Your task to perform on an android device: change notification settings in the gmail app Image 0: 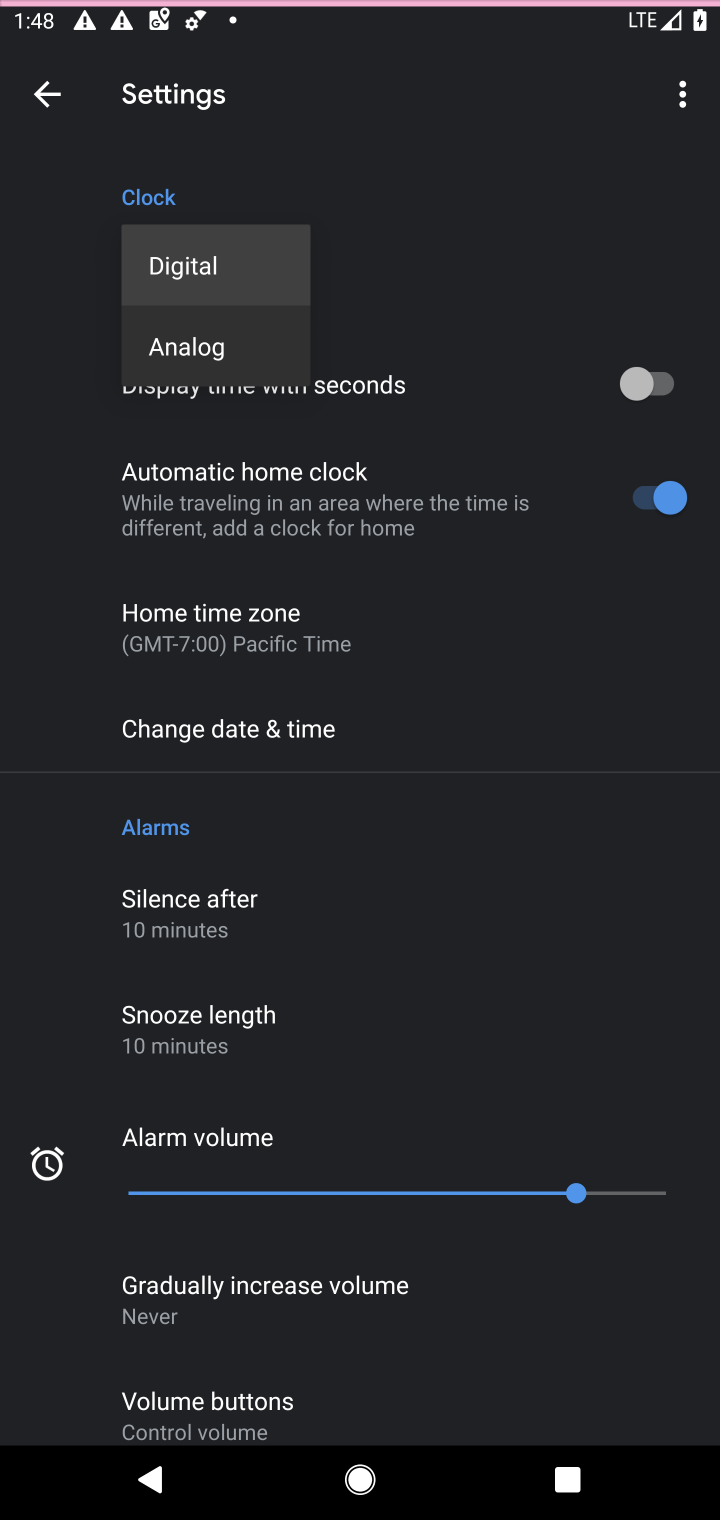
Step 0: press home button
Your task to perform on an android device: change notification settings in the gmail app Image 1: 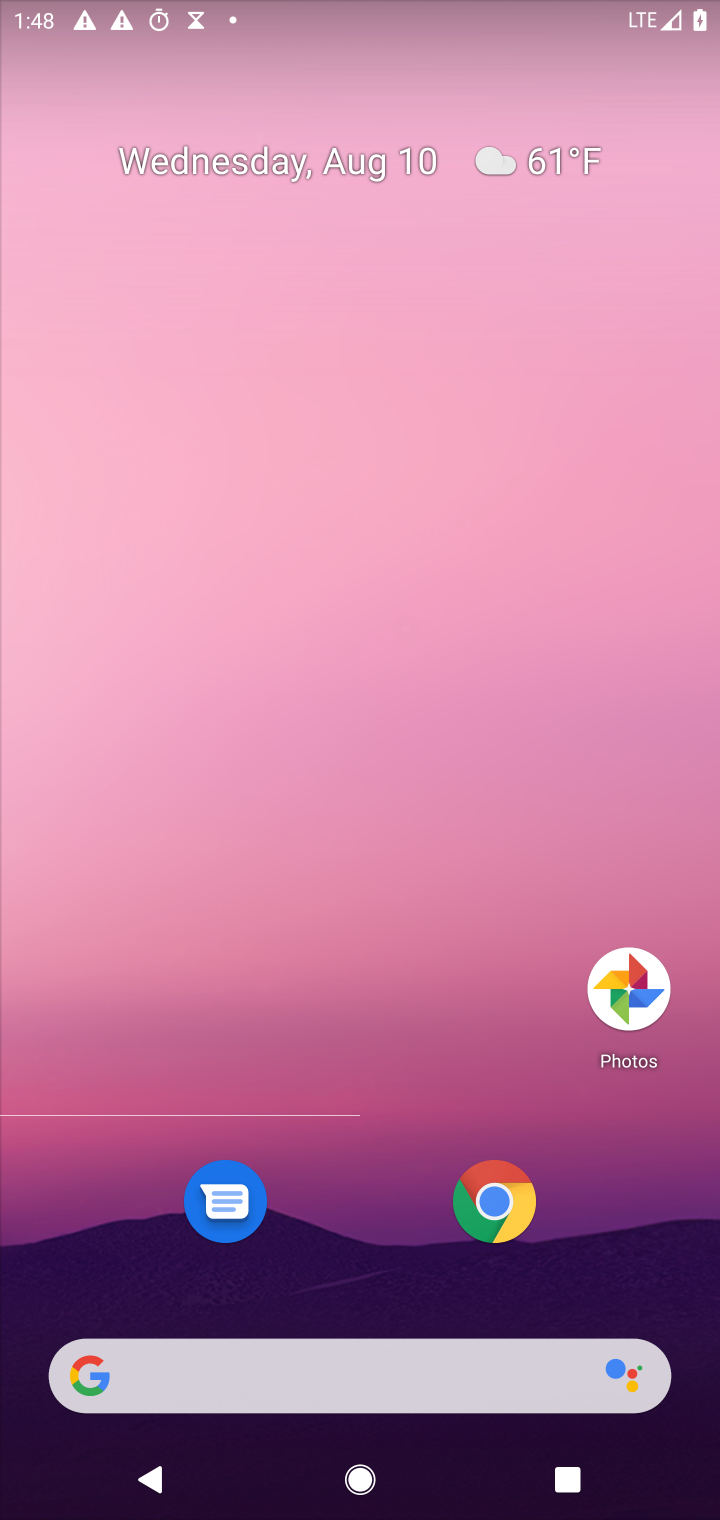
Step 1: press home button
Your task to perform on an android device: change notification settings in the gmail app Image 2: 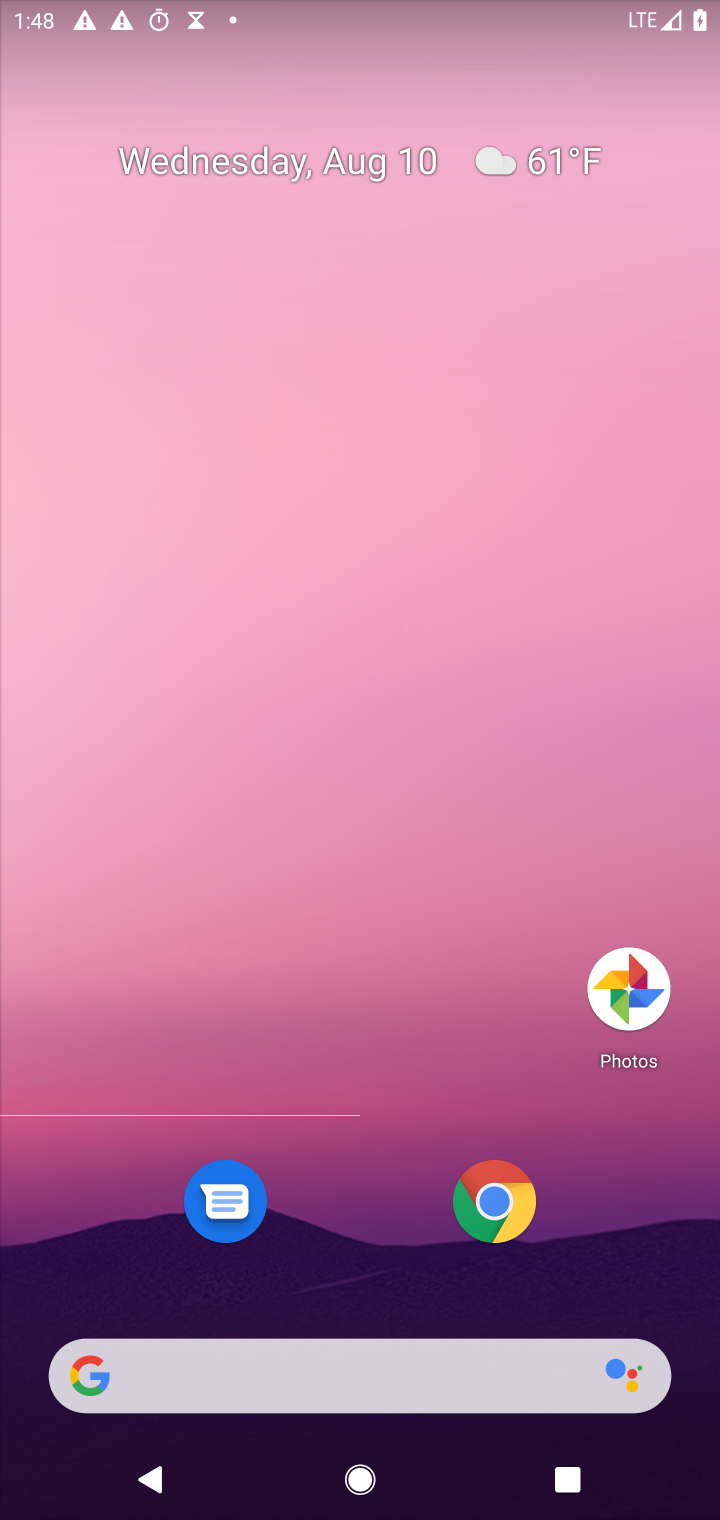
Step 2: drag from (406, 1189) to (344, 511)
Your task to perform on an android device: change notification settings in the gmail app Image 3: 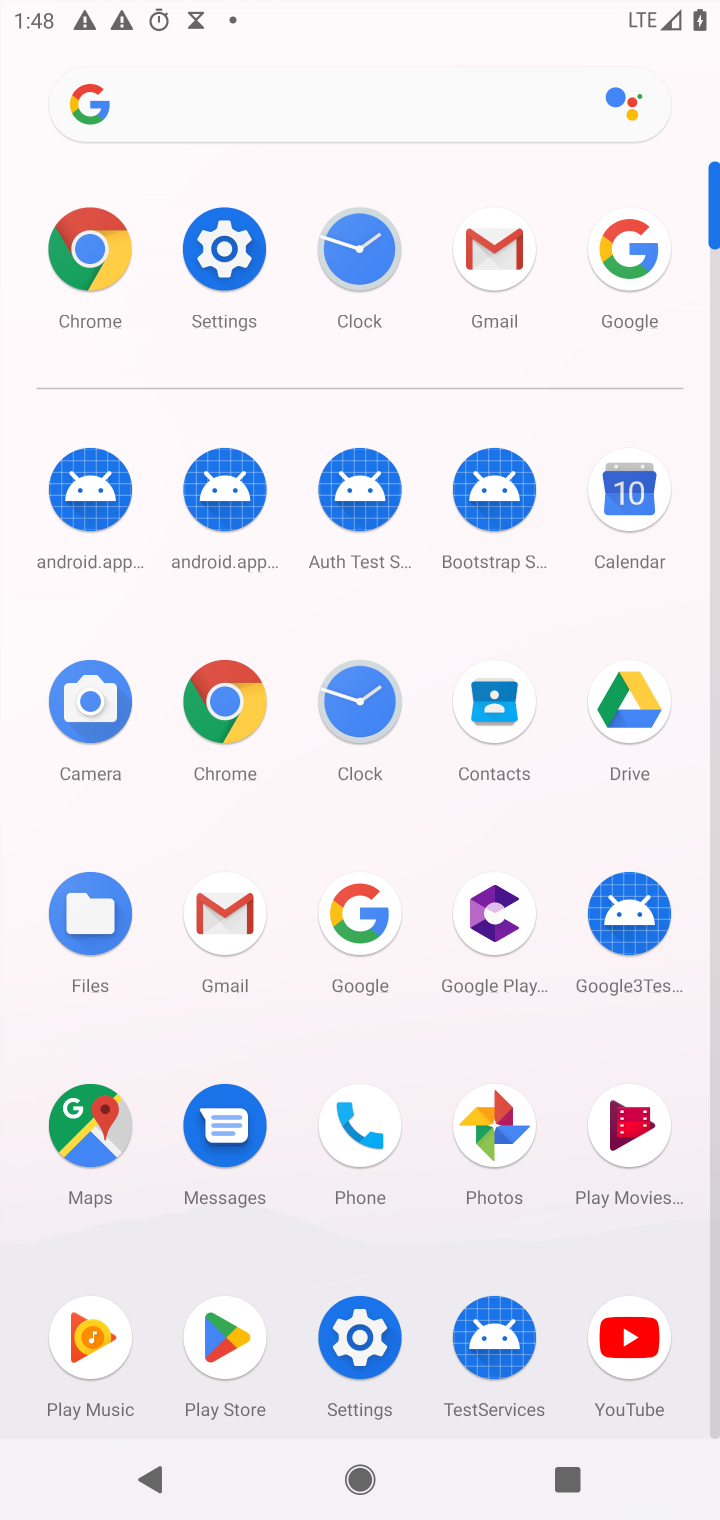
Step 3: click (505, 254)
Your task to perform on an android device: change notification settings in the gmail app Image 4: 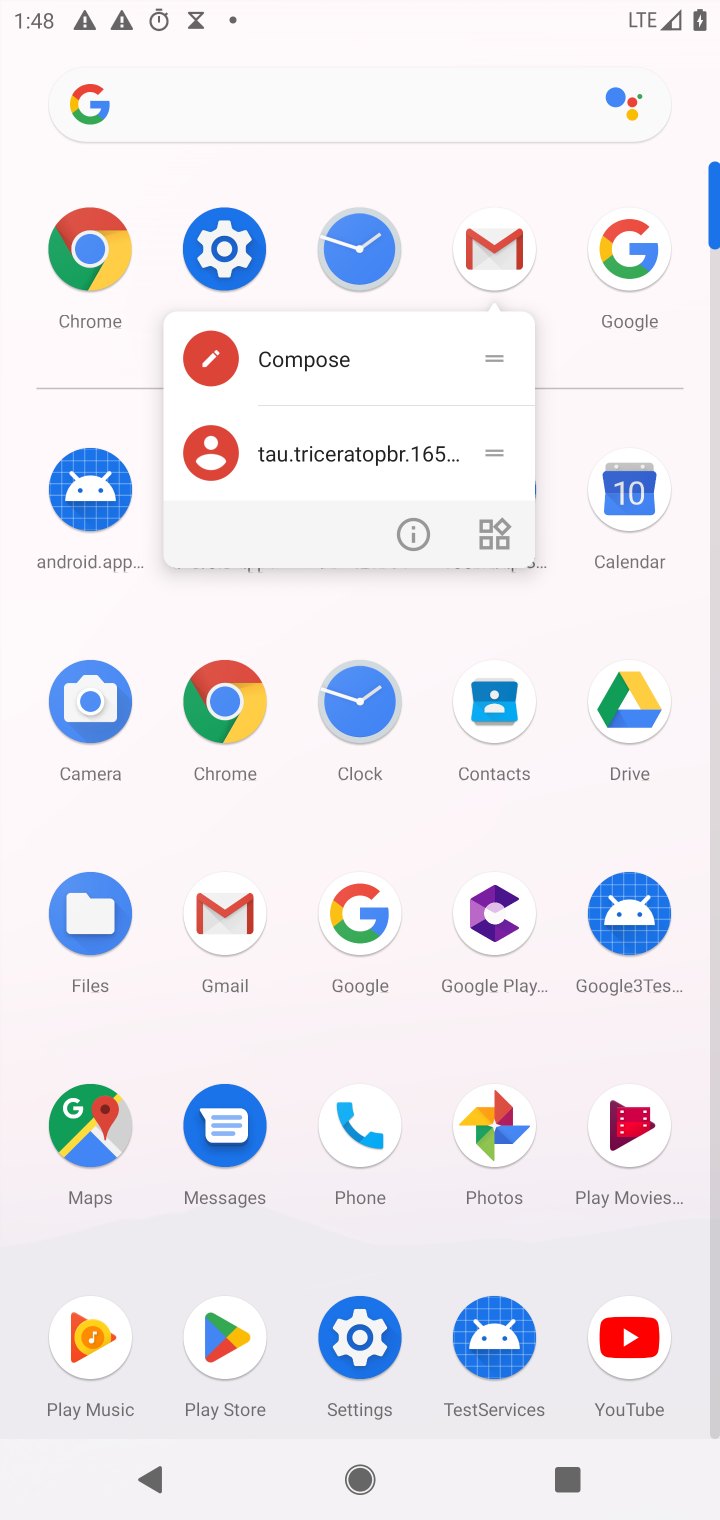
Step 4: click (505, 254)
Your task to perform on an android device: change notification settings in the gmail app Image 5: 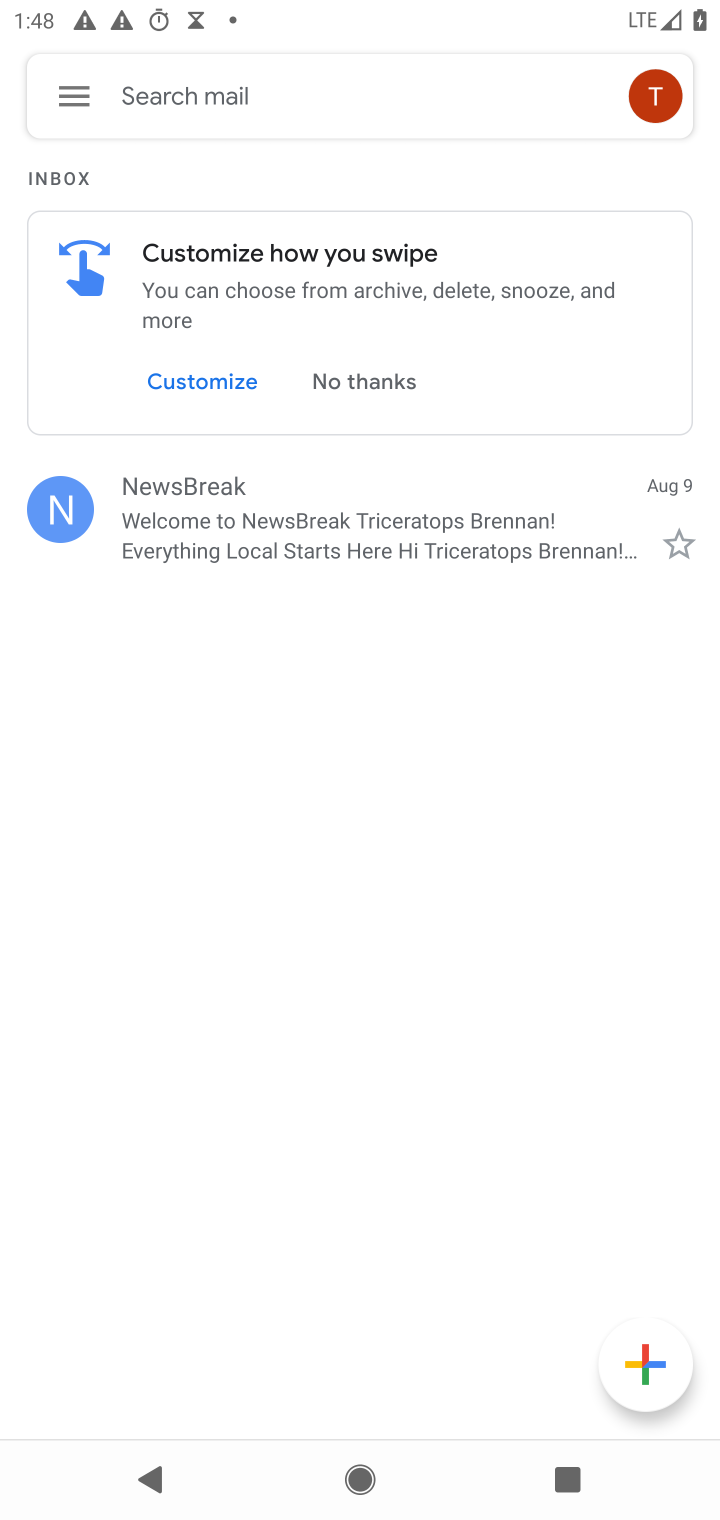
Step 5: click (50, 98)
Your task to perform on an android device: change notification settings in the gmail app Image 6: 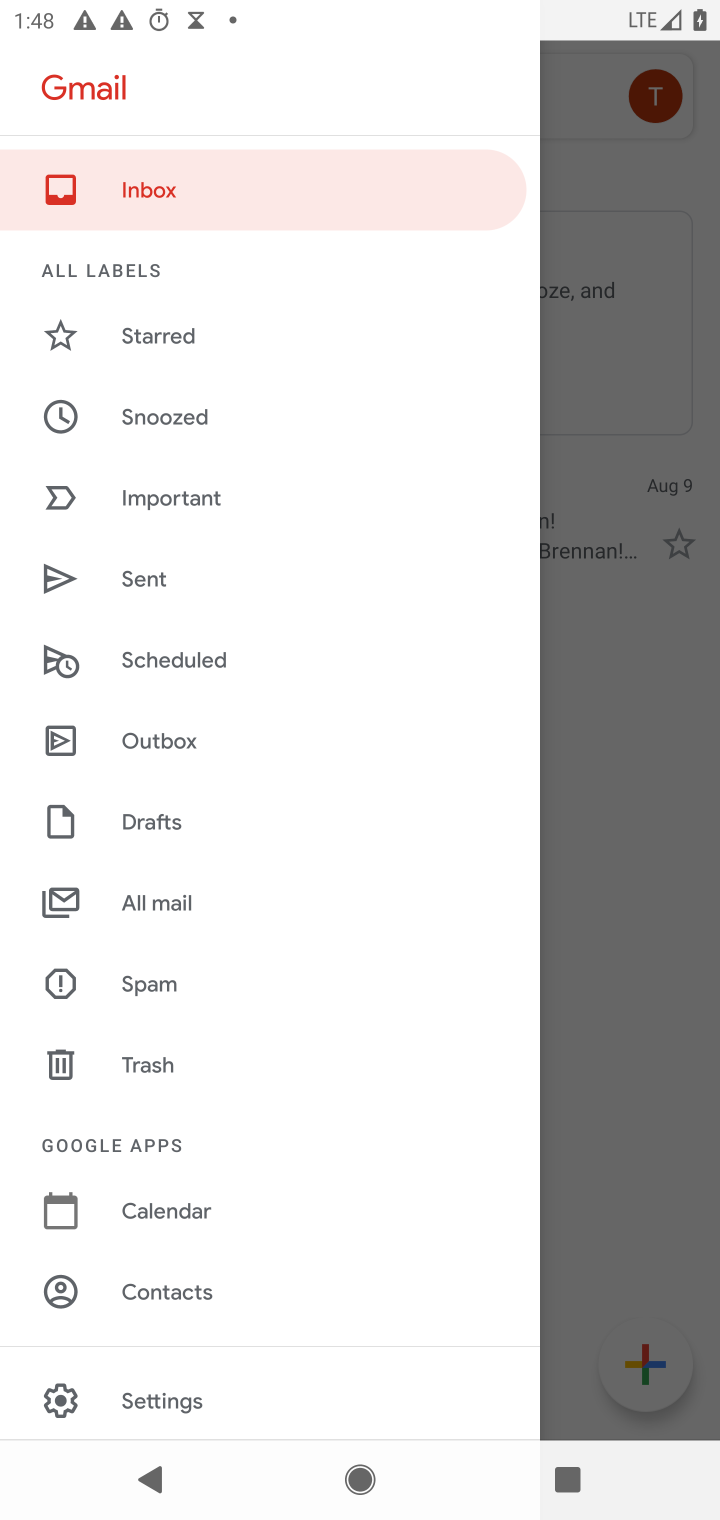
Step 6: click (159, 1401)
Your task to perform on an android device: change notification settings in the gmail app Image 7: 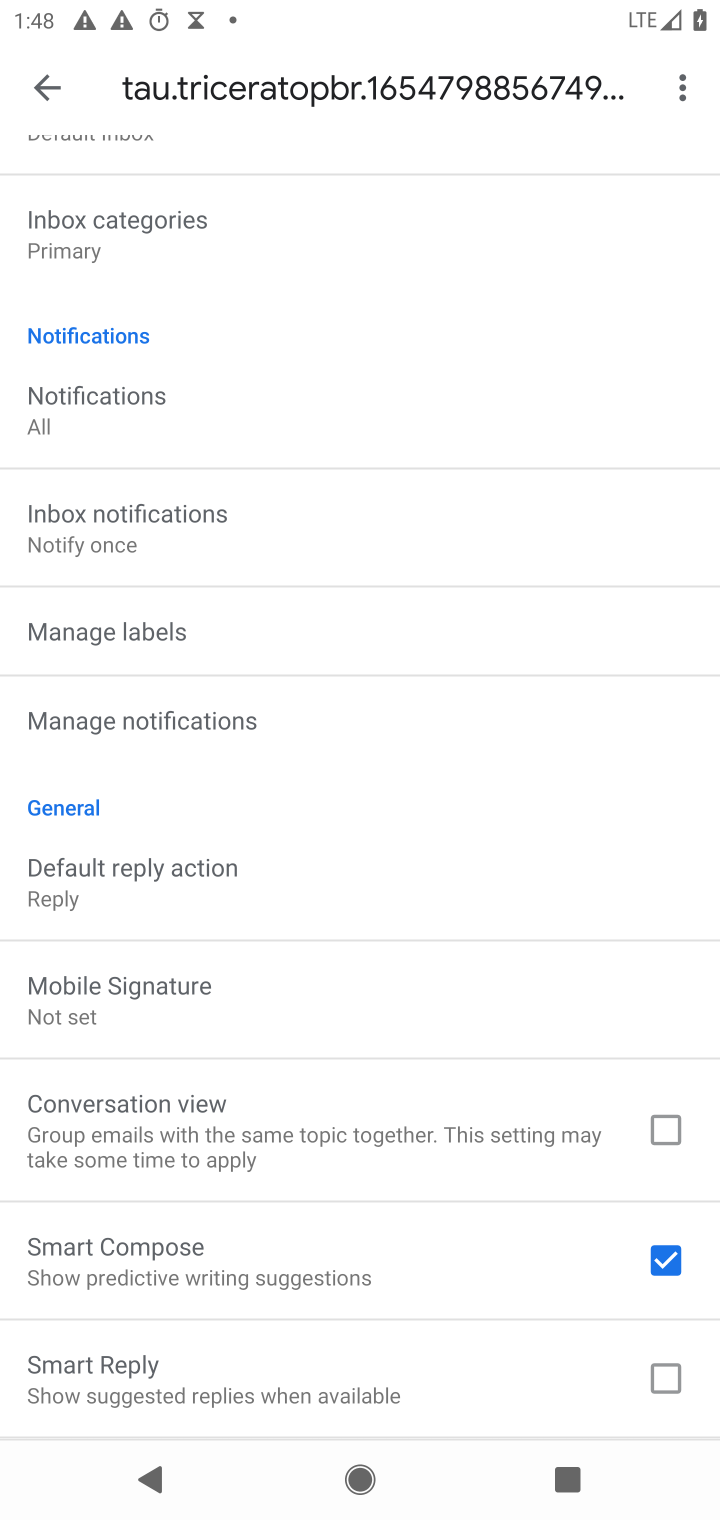
Step 7: click (161, 720)
Your task to perform on an android device: change notification settings in the gmail app Image 8: 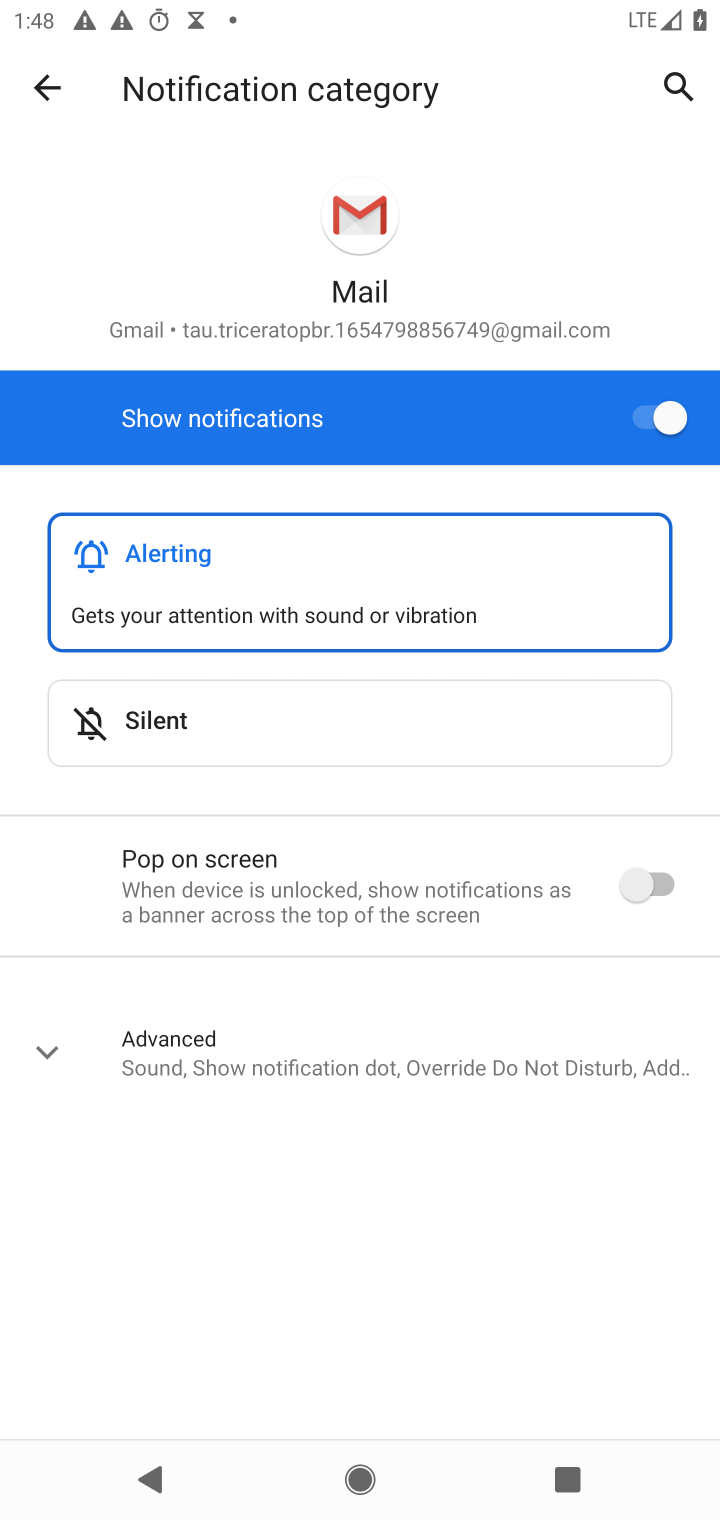
Step 8: click (669, 417)
Your task to perform on an android device: change notification settings in the gmail app Image 9: 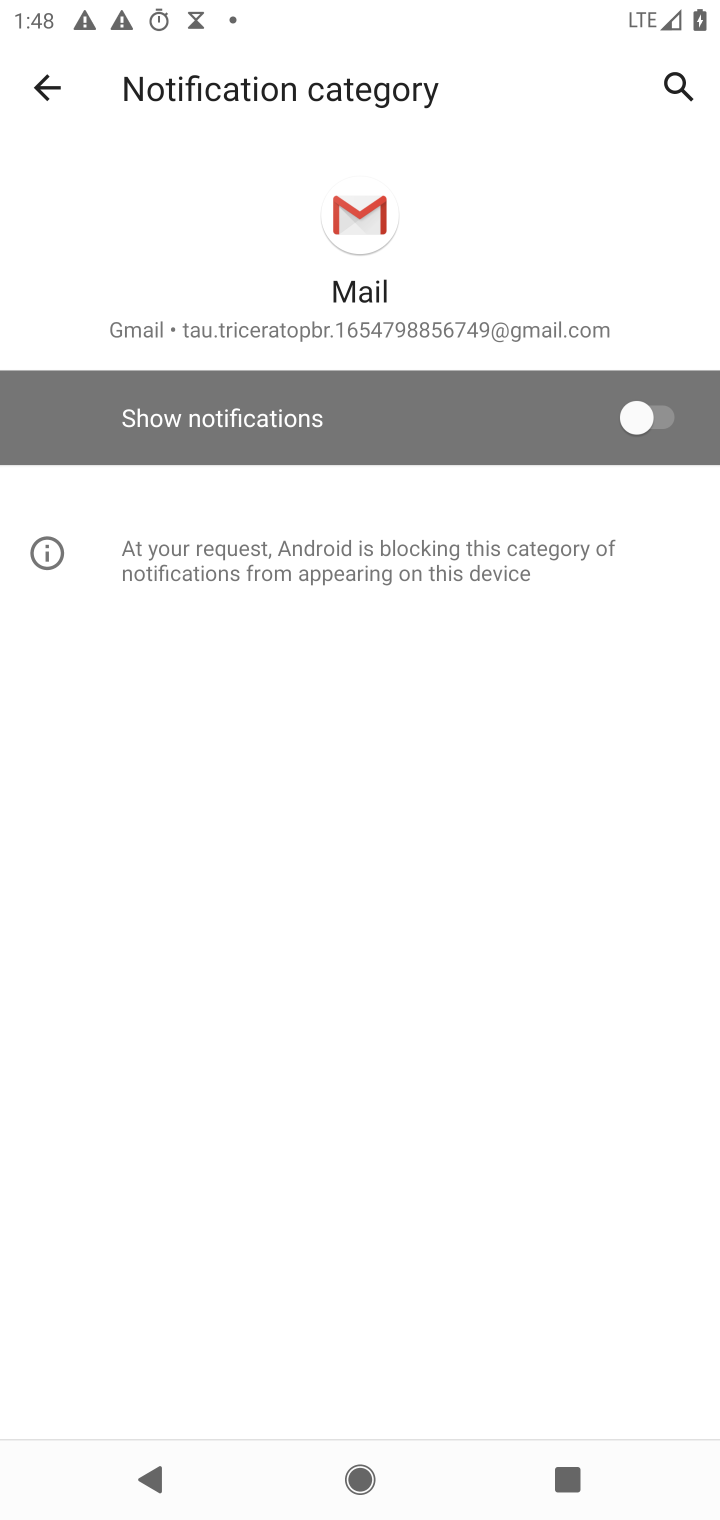
Step 9: task complete